Your task to perform on an android device: check out phone information Image 0: 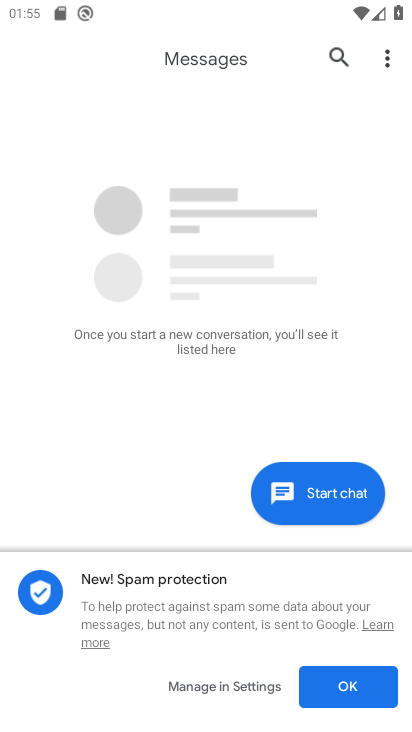
Step 0: press home button
Your task to perform on an android device: check out phone information Image 1: 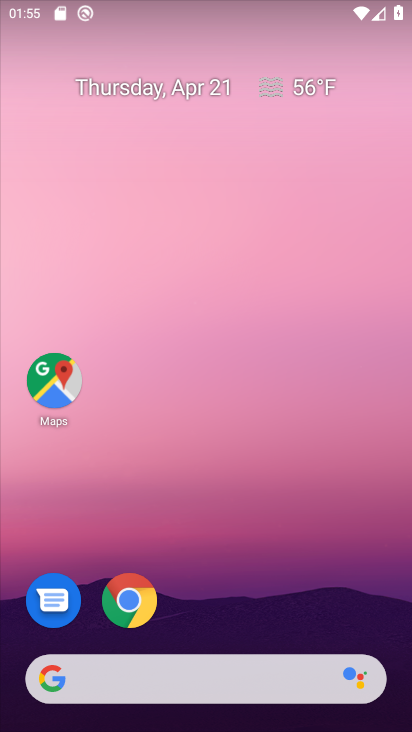
Step 1: drag from (234, 567) to (268, 140)
Your task to perform on an android device: check out phone information Image 2: 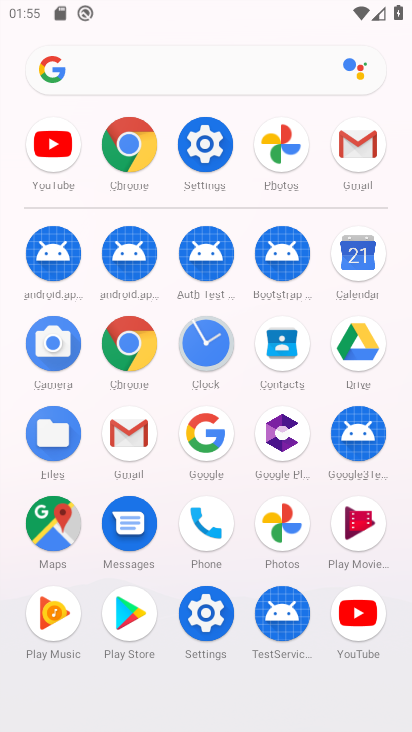
Step 2: click (197, 518)
Your task to perform on an android device: check out phone information Image 3: 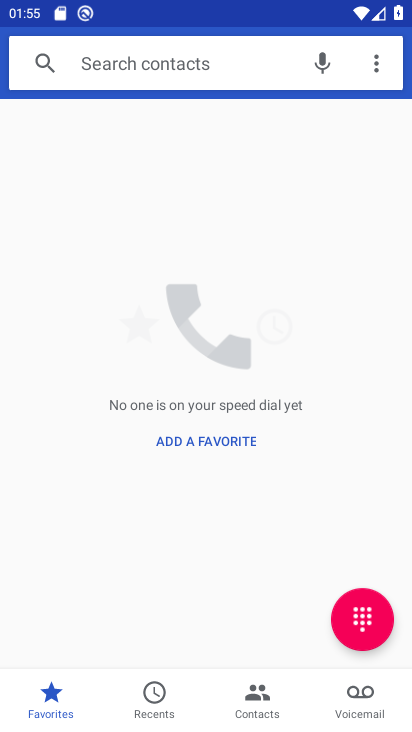
Step 3: click (370, 56)
Your task to perform on an android device: check out phone information Image 4: 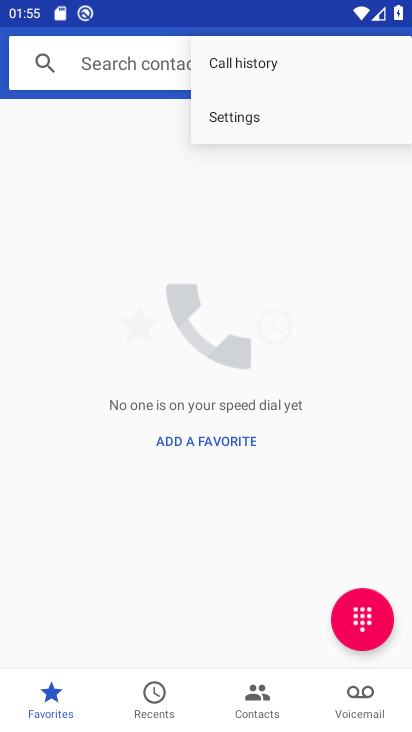
Step 4: click (312, 126)
Your task to perform on an android device: check out phone information Image 5: 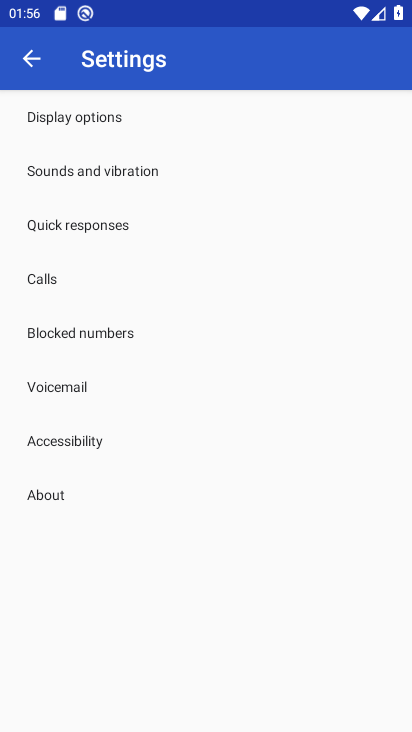
Step 5: click (60, 487)
Your task to perform on an android device: check out phone information Image 6: 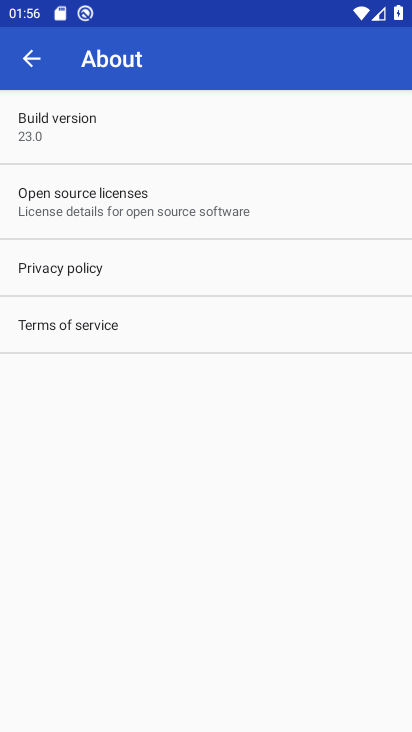
Step 6: task complete